Your task to perform on an android device: Go to Yahoo.com Image 0: 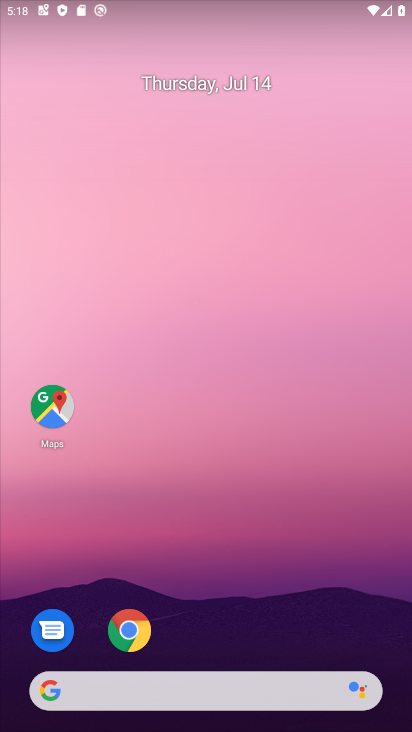
Step 0: press home button
Your task to perform on an android device: Go to Yahoo.com Image 1: 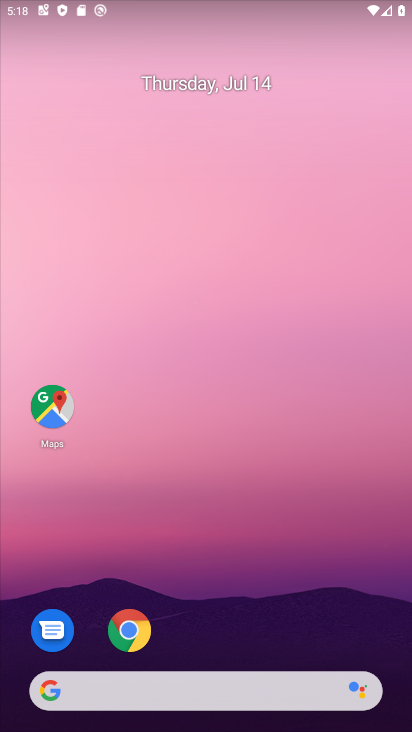
Step 1: click (57, 703)
Your task to perform on an android device: Go to Yahoo.com Image 2: 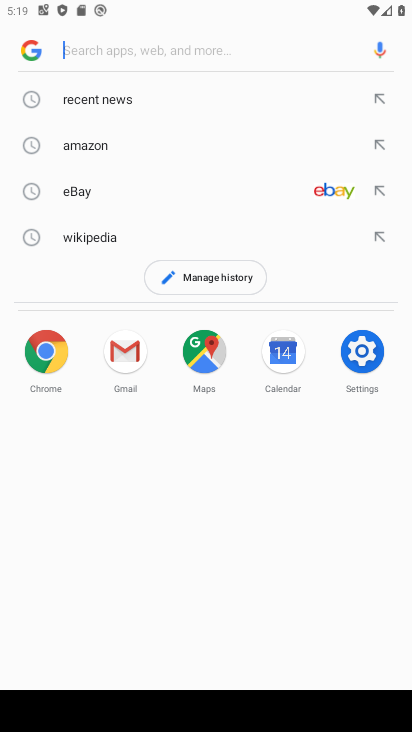
Step 2: type "Yahoo.com"
Your task to perform on an android device: Go to Yahoo.com Image 3: 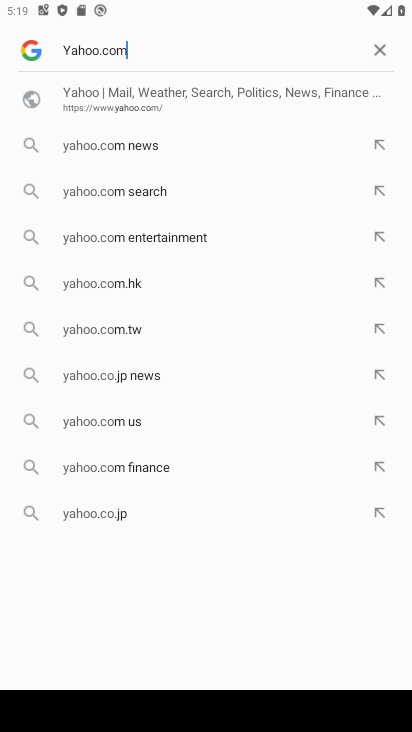
Step 3: press enter
Your task to perform on an android device: Go to Yahoo.com Image 4: 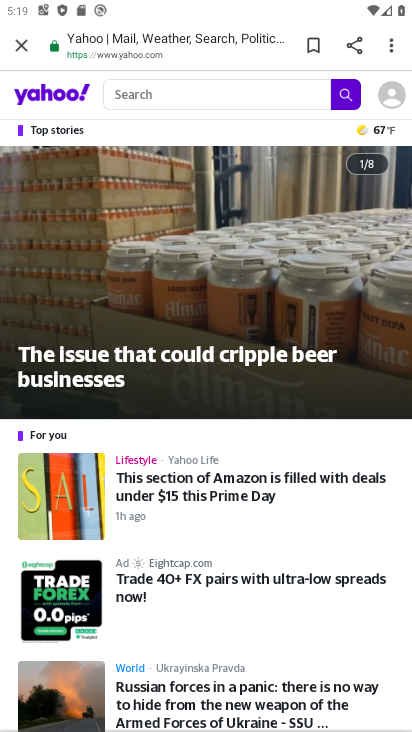
Step 4: task complete